Your task to perform on an android device: turn notification dots off Image 0: 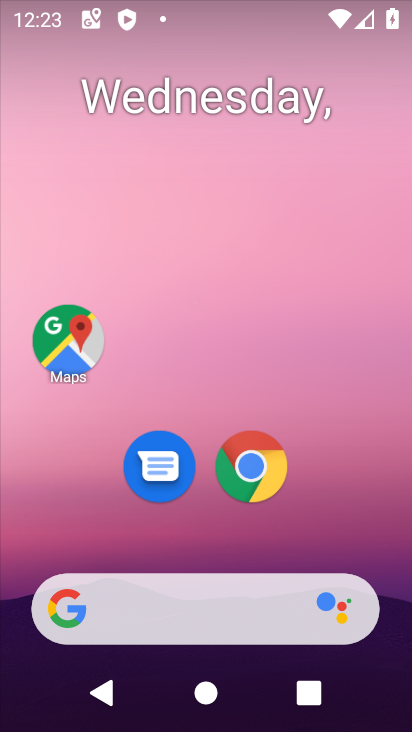
Step 0: drag from (394, 560) to (254, 17)
Your task to perform on an android device: turn notification dots off Image 1: 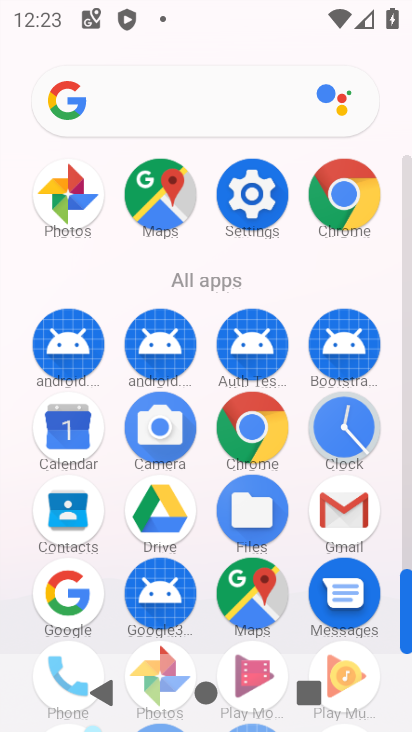
Step 1: click (265, 201)
Your task to perform on an android device: turn notification dots off Image 2: 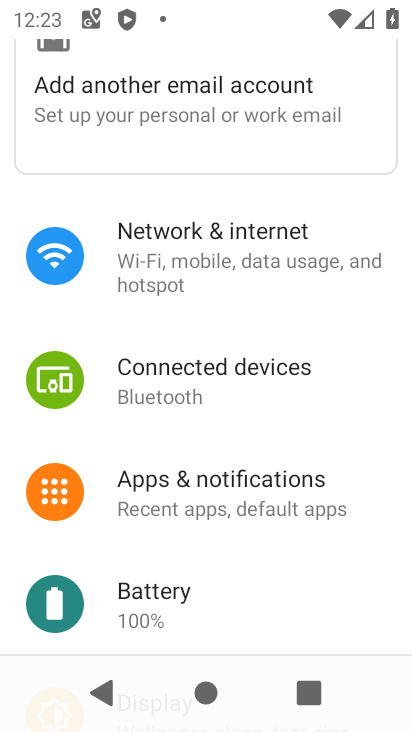
Step 2: click (246, 488)
Your task to perform on an android device: turn notification dots off Image 3: 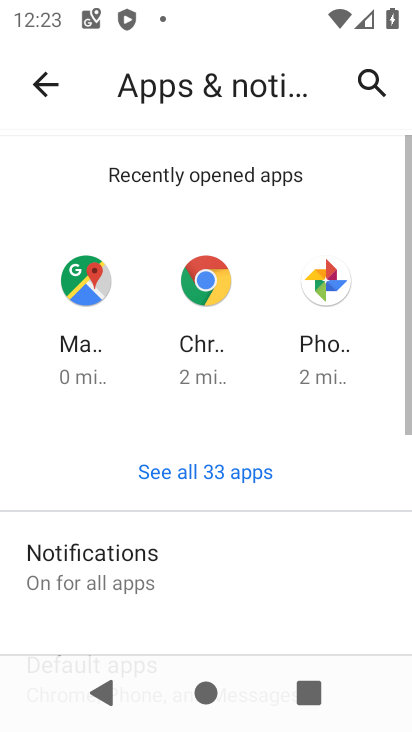
Step 3: click (263, 553)
Your task to perform on an android device: turn notification dots off Image 4: 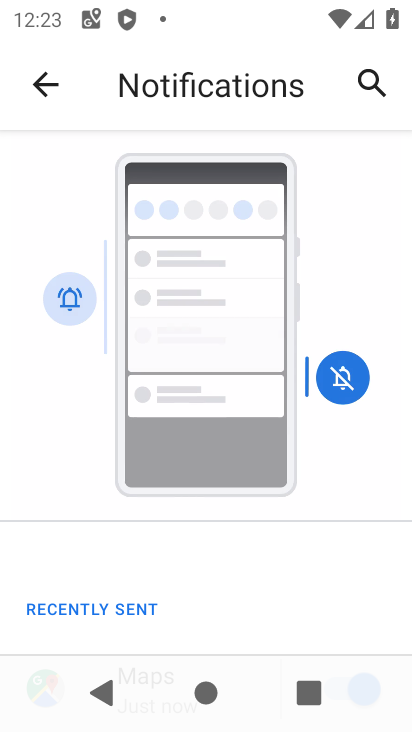
Step 4: drag from (263, 553) to (241, 158)
Your task to perform on an android device: turn notification dots off Image 5: 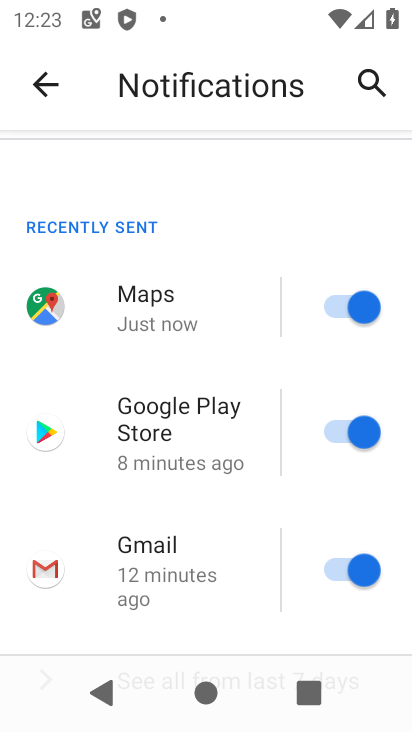
Step 5: drag from (267, 579) to (234, 236)
Your task to perform on an android device: turn notification dots off Image 6: 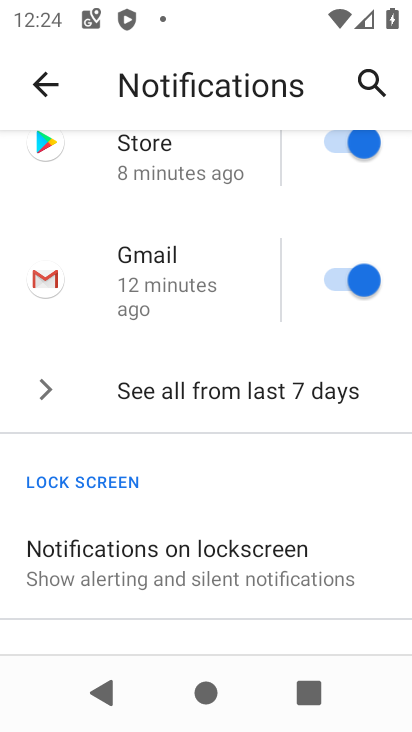
Step 6: drag from (241, 531) to (177, 134)
Your task to perform on an android device: turn notification dots off Image 7: 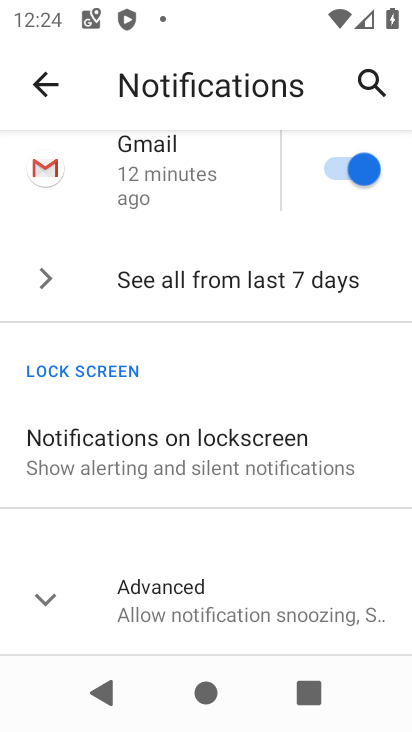
Step 7: click (248, 600)
Your task to perform on an android device: turn notification dots off Image 8: 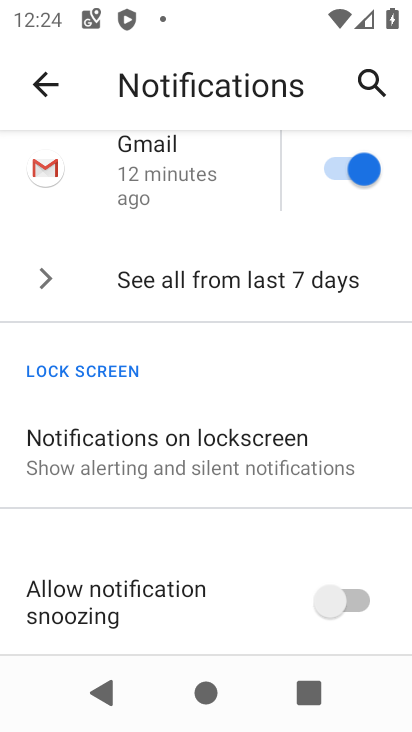
Step 8: drag from (259, 610) to (219, 334)
Your task to perform on an android device: turn notification dots off Image 9: 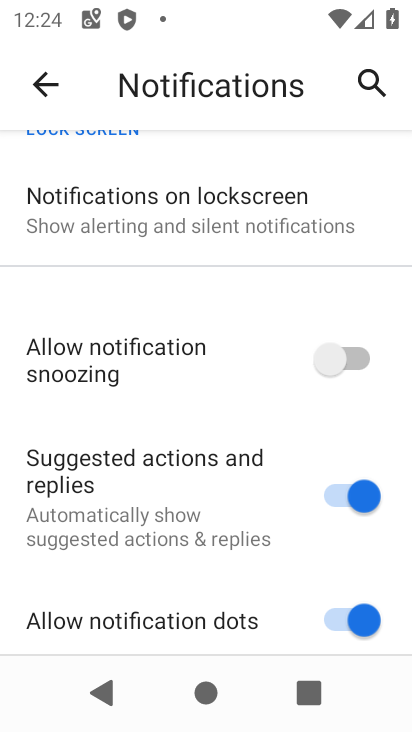
Step 9: click (355, 629)
Your task to perform on an android device: turn notification dots off Image 10: 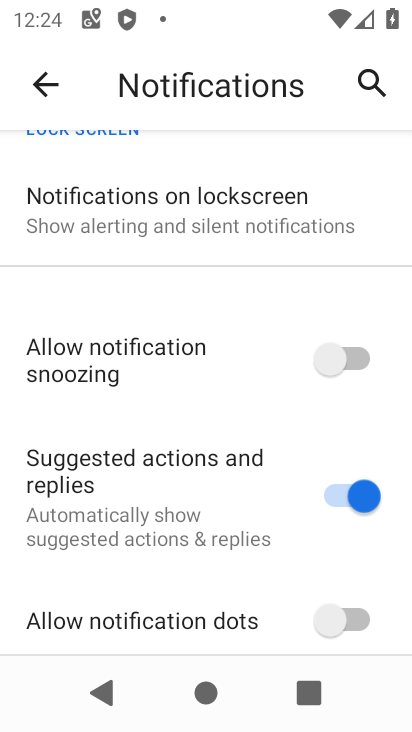
Step 10: task complete